Your task to perform on an android device: open the mobile data screen to see how much data has been used Image 0: 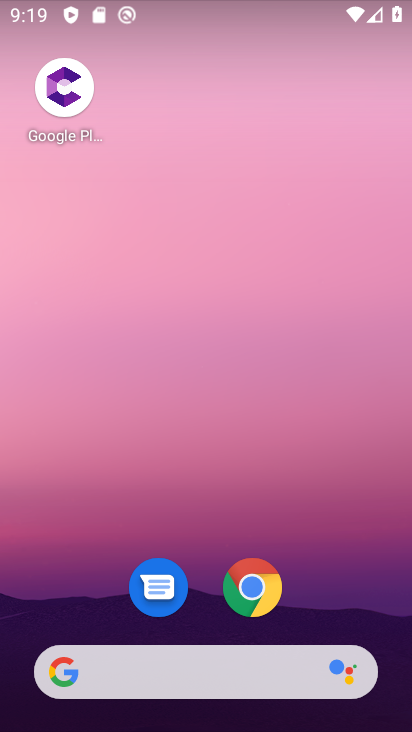
Step 0: drag from (327, 595) to (328, 217)
Your task to perform on an android device: open the mobile data screen to see how much data has been used Image 1: 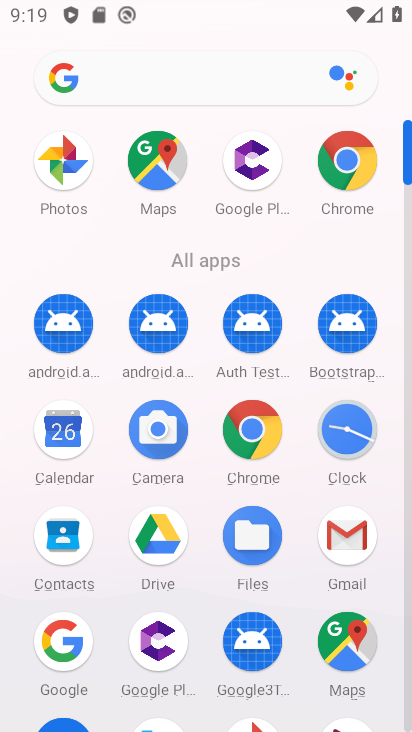
Step 1: drag from (207, 576) to (212, 304)
Your task to perform on an android device: open the mobile data screen to see how much data has been used Image 2: 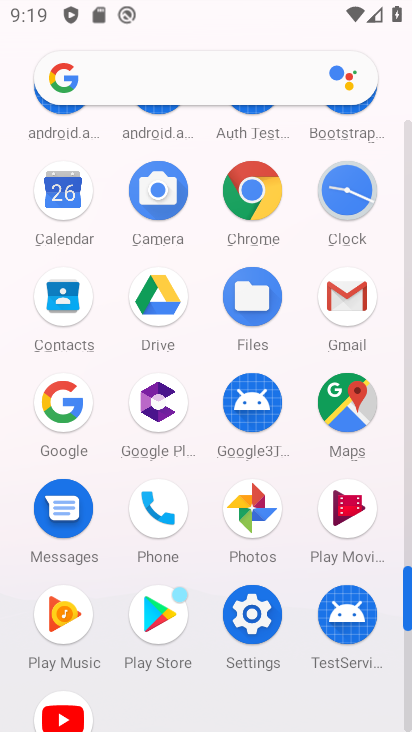
Step 2: click (261, 614)
Your task to perform on an android device: open the mobile data screen to see how much data has been used Image 3: 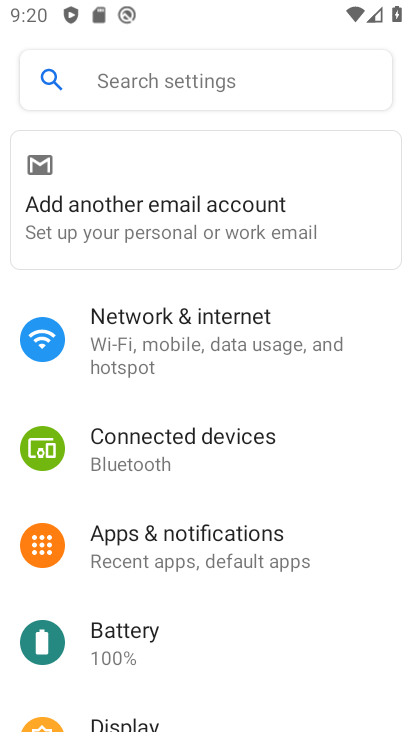
Step 3: click (269, 333)
Your task to perform on an android device: open the mobile data screen to see how much data has been used Image 4: 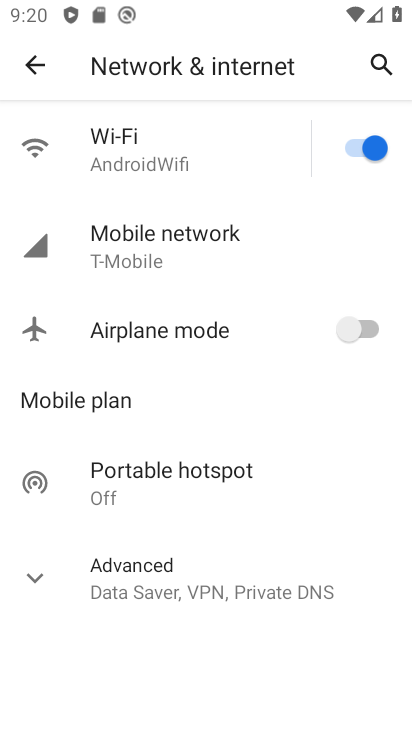
Step 4: click (143, 254)
Your task to perform on an android device: open the mobile data screen to see how much data has been used Image 5: 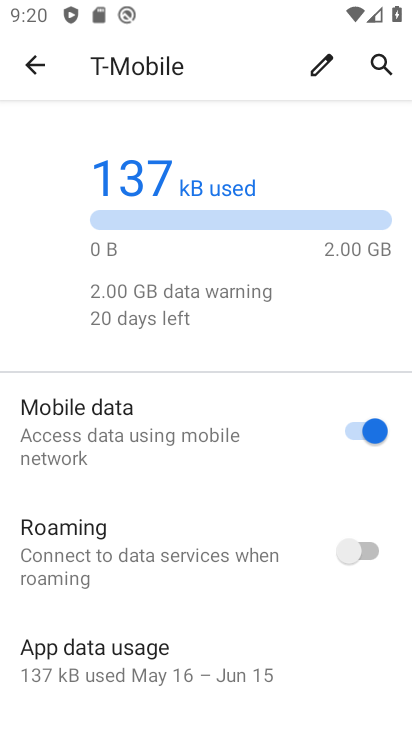
Step 5: click (120, 658)
Your task to perform on an android device: open the mobile data screen to see how much data has been used Image 6: 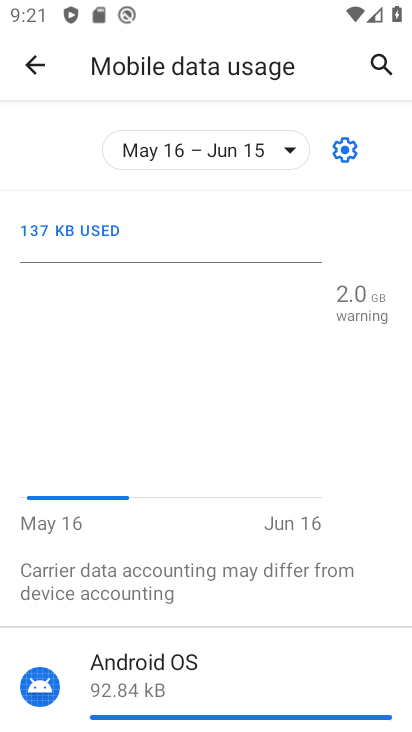
Step 6: task complete